Your task to perform on an android device: refresh tabs in the chrome app Image 0: 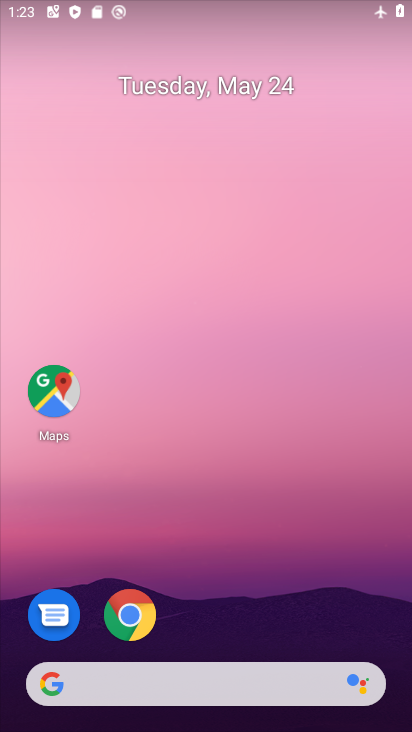
Step 0: click (132, 609)
Your task to perform on an android device: refresh tabs in the chrome app Image 1: 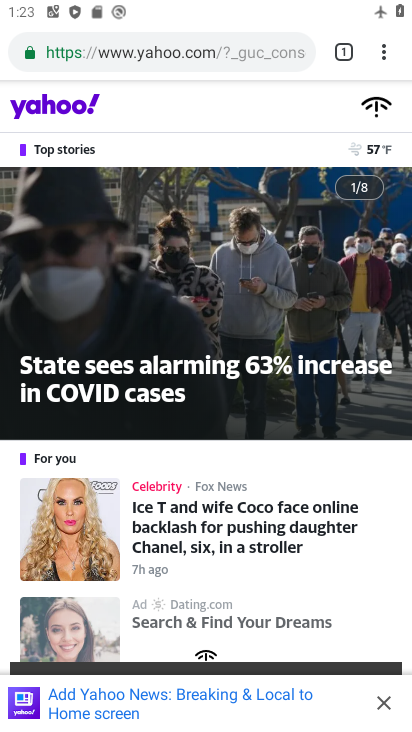
Step 1: click (379, 49)
Your task to perform on an android device: refresh tabs in the chrome app Image 2: 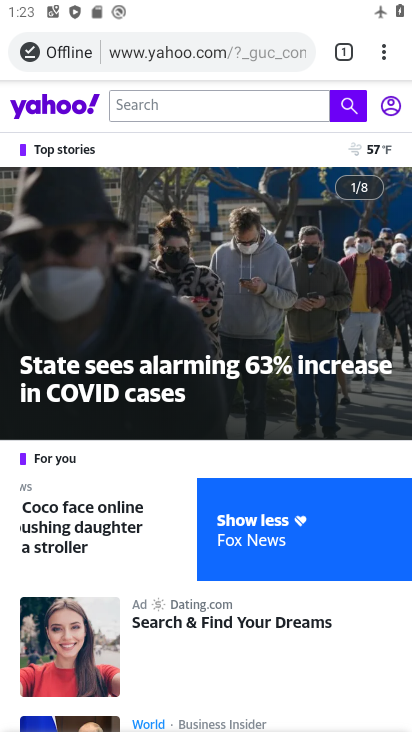
Step 2: task complete